Your task to perform on an android device: add a contact in the contacts app Image 0: 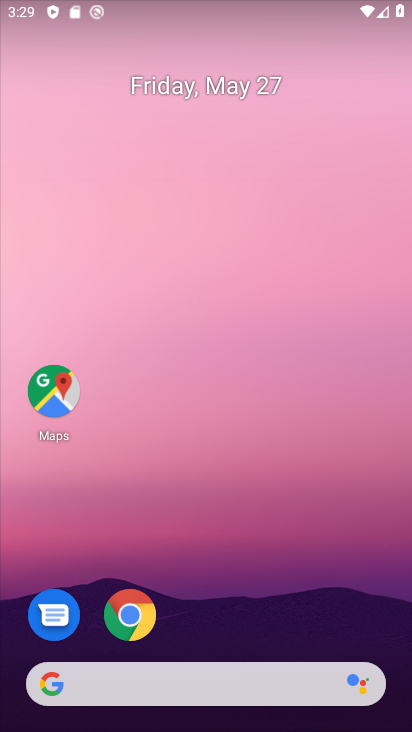
Step 0: drag from (134, 723) to (222, 68)
Your task to perform on an android device: add a contact in the contacts app Image 1: 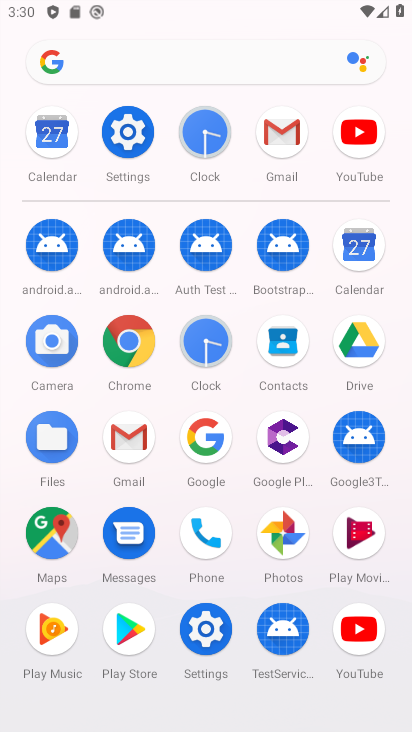
Step 1: click (279, 354)
Your task to perform on an android device: add a contact in the contacts app Image 2: 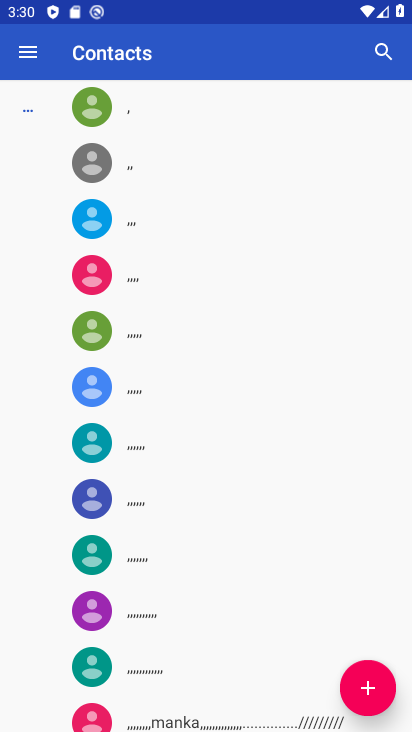
Step 2: click (384, 701)
Your task to perform on an android device: add a contact in the contacts app Image 3: 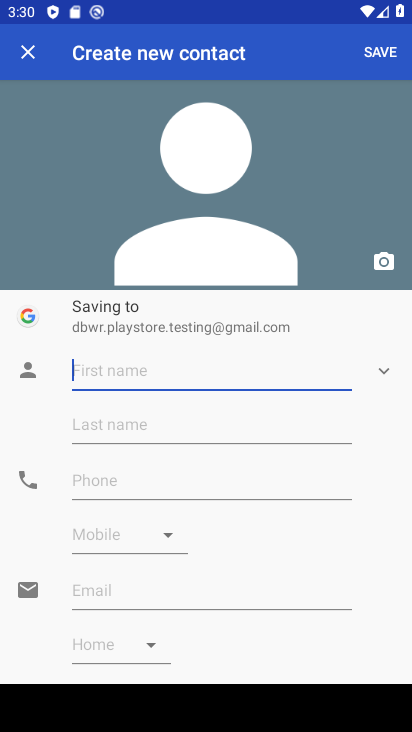
Step 3: type "as"
Your task to perform on an android device: add a contact in the contacts app Image 4: 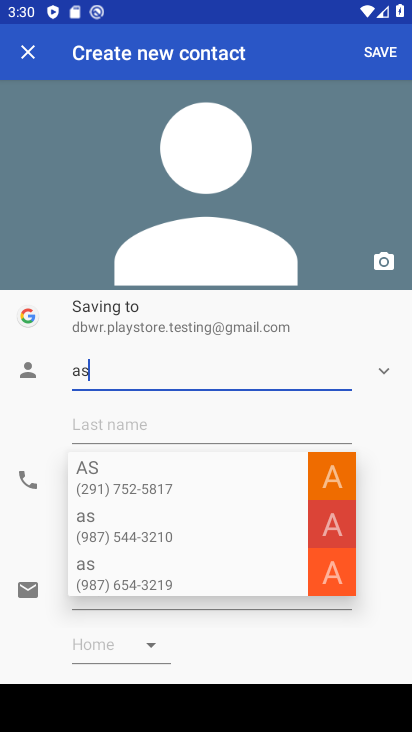
Step 4: click (190, 486)
Your task to perform on an android device: add a contact in the contacts app Image 5: 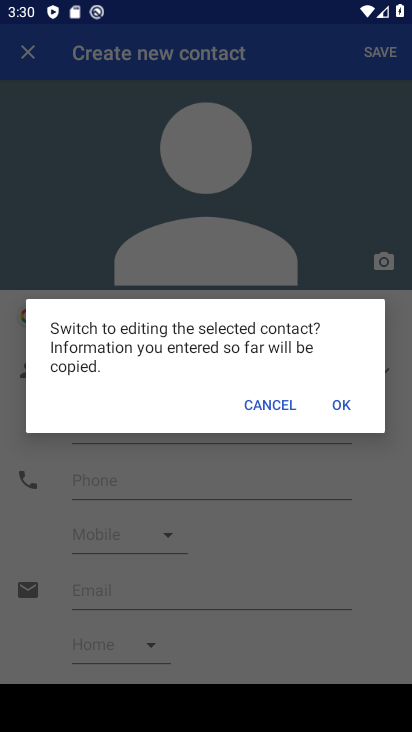
Step 5: click (280, 402)
Your task to perform on an android device: add a contact in the contacts app Image 6: 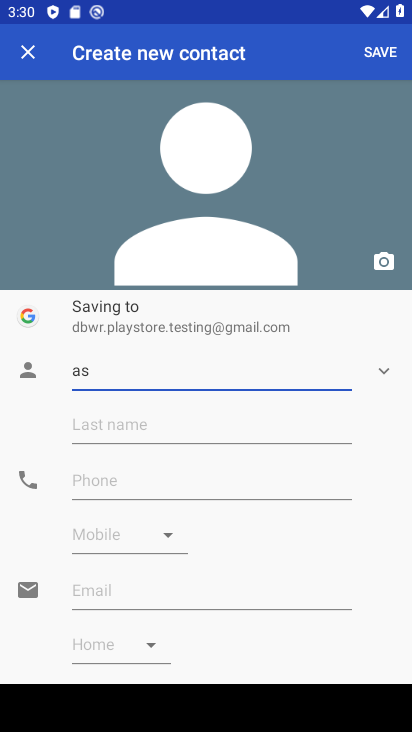
Step 6: click (234, 492)
Your task to perform on an android device: add a contact in the contacts app Image 7: 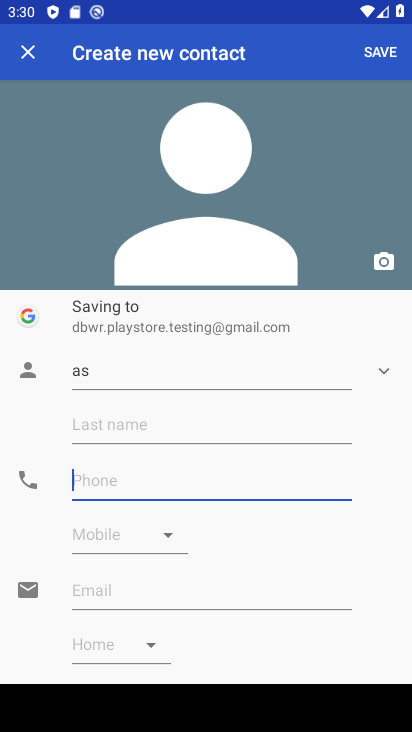
Step 7: type "9876542319"
Your task to perform on an android device: add a contact in the contacts app Image 8: 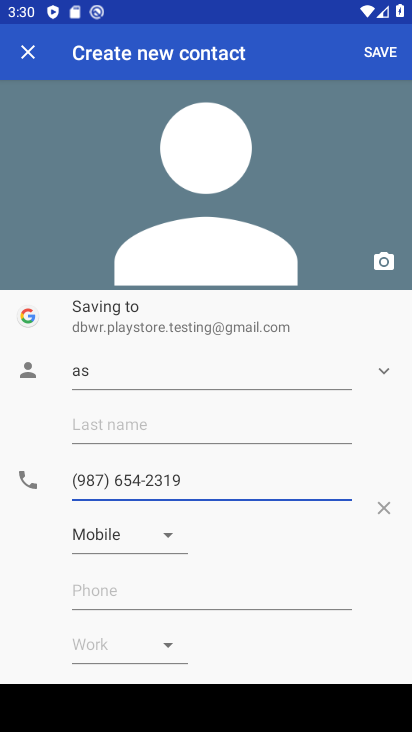
Step 8: click (391, 58)
Your task to perform on an android device: add a contact in the contacts app Image 9: 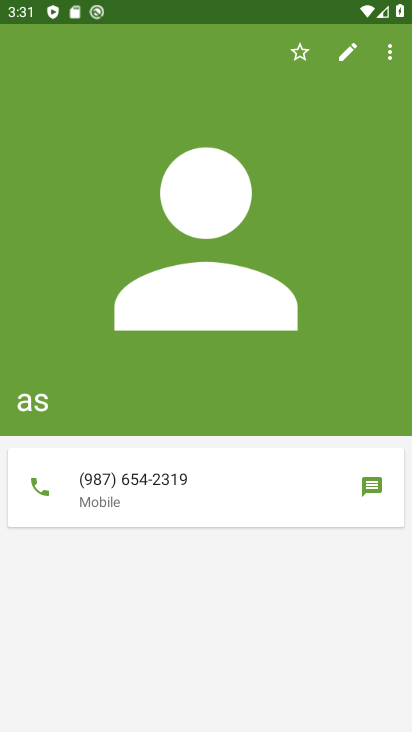
Step 9: task complete